Your task to perform on an android device: Open maps Image 0: 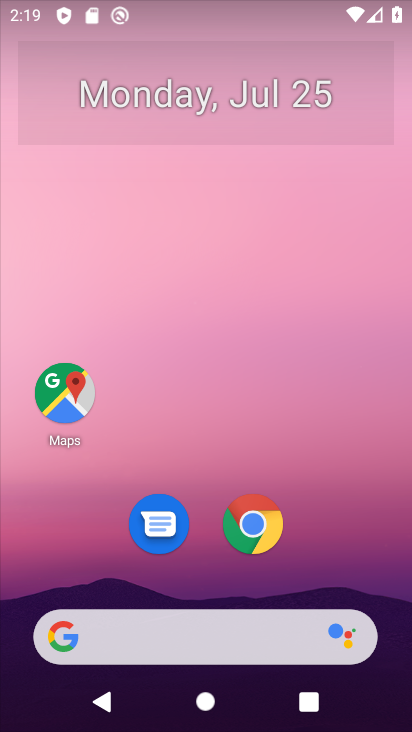
Step 0: click (58, 385)
Your task to perform on an android device: Open maps Image 1: 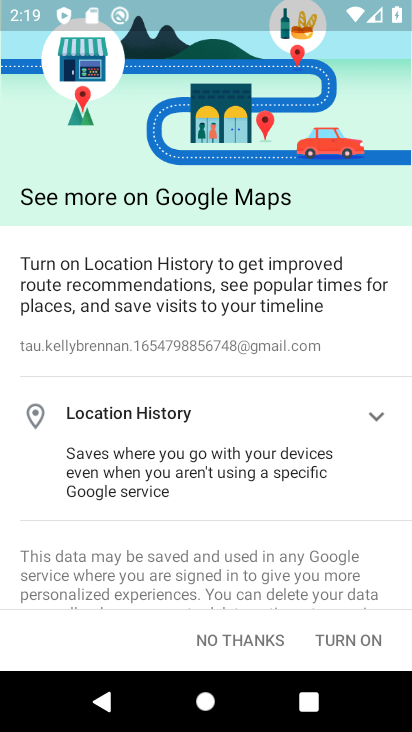
Step 1: click (360, 631)
Your task to perform on an android device: Open maps Image 2: 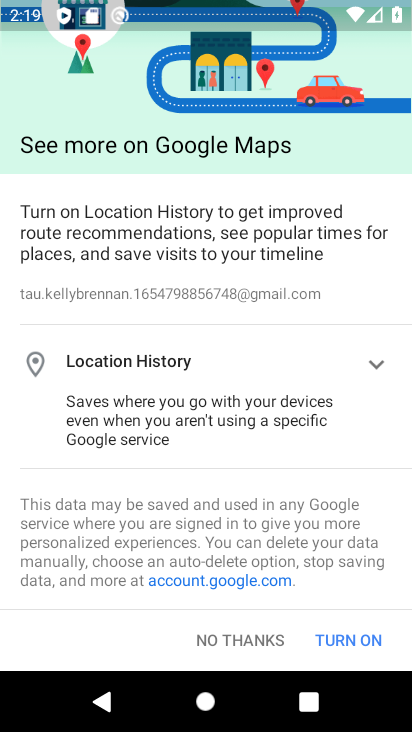
Step 2: click (356, 633)
Your task to perform on an android device: Open maps Image 3: 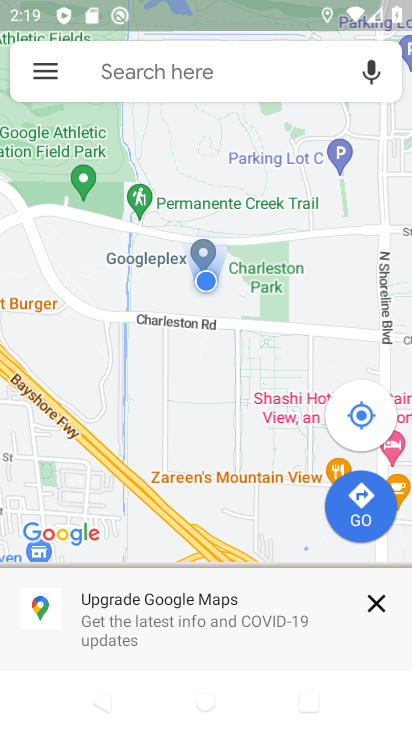
Step 3: task complete